Your task to perform on an android device: toggle javascript in the chrome app Image 0: 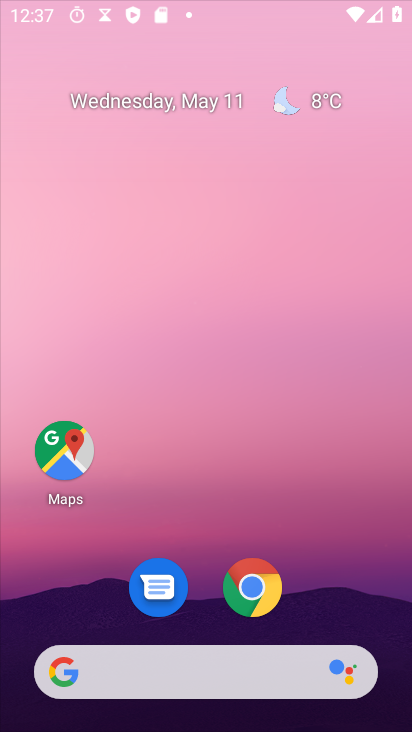
Step 0: drag from (274, 617) to (233, 109)
Your task to perform on an android device: toggle javascript in the chrome app Image 1: 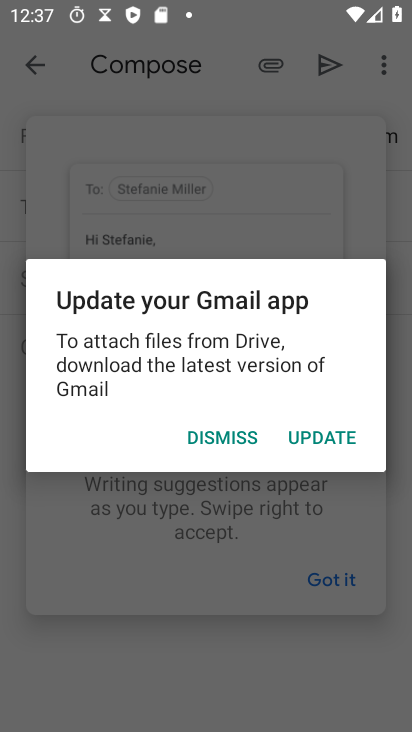
Step 1: click (217, 436)
Your task to perform on an android device: toggle javascript in the chrome app Image 2: 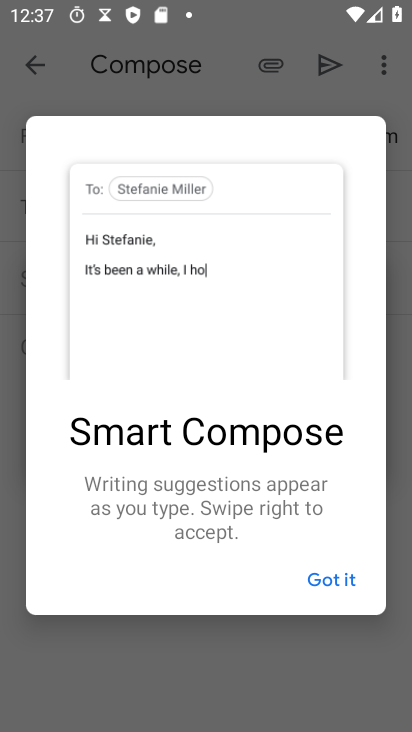
Step 2: click (343, 582)
Your task to perform on an android device: toggle javascript in the chrome app Image 3: 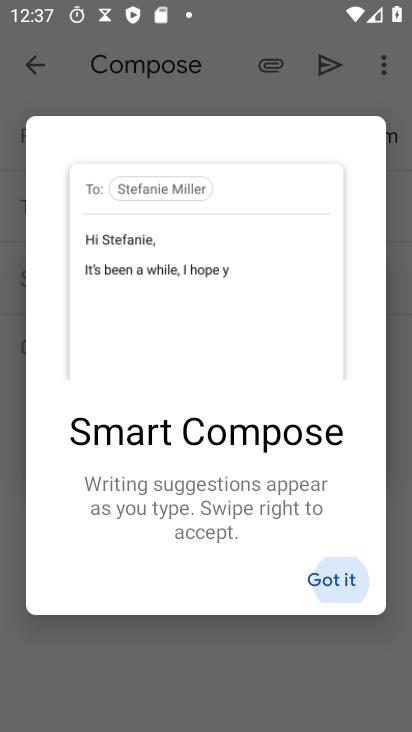
Step 3: click (339, 582)
Your task to perform on an android device: toggle javascript in the chrome app Image 4: 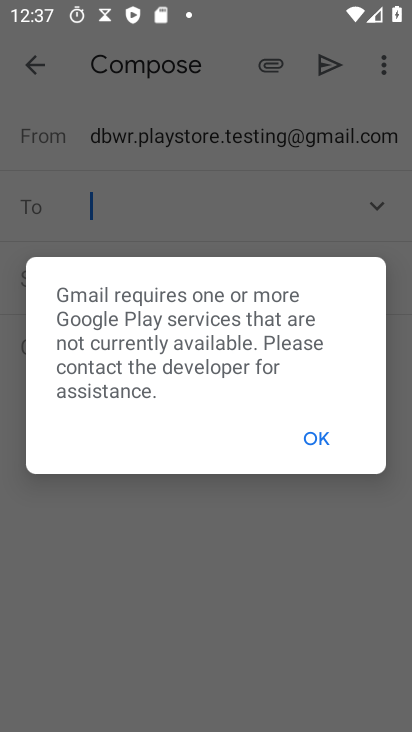
Step 4: click (338, 582)
Your task to perform on an android device: toggle javascript in the chrome app Image 5: 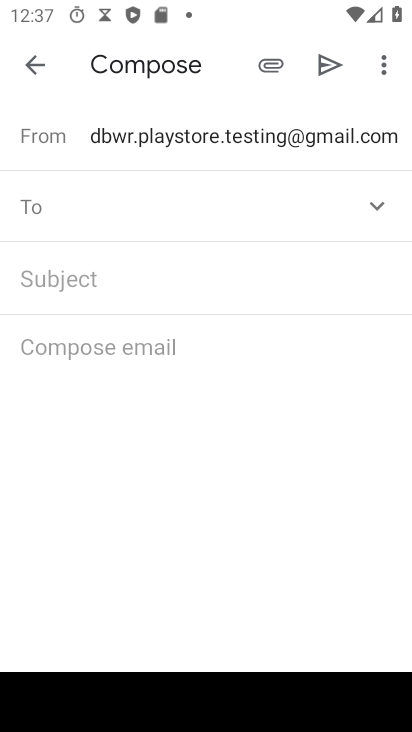
Step 5: click (33, 71)
Your task to perform on an android device: toggle javascript in the chrome app Image 6: 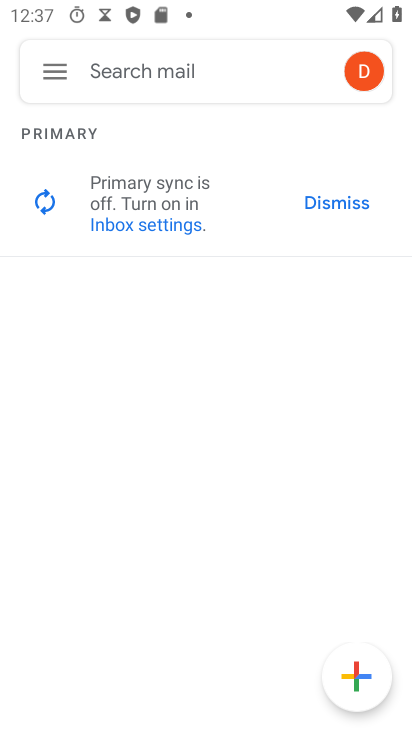
Step 6: press back button
Your task to perform on an android device: toggle javascript in the chrome app Image 7: 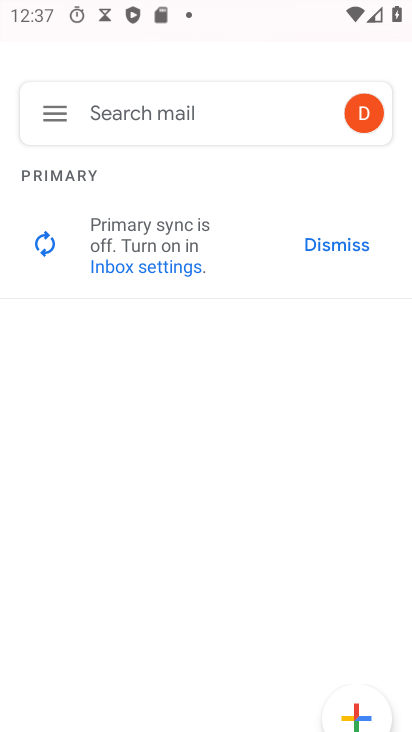
Step 7: press back button
Your task to perform on an android device: toggle javascript in the chrome app Image 8: 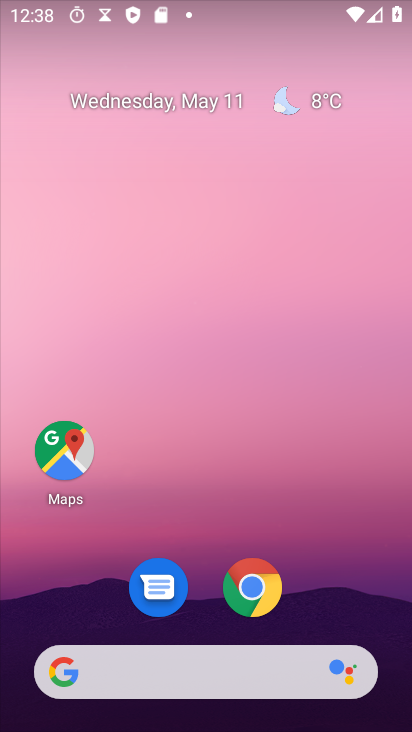
Step 8: drag from (350, 566) to (171, 254)
Your task to perform on an android device: toggle javascript in the chrome app Image 9: 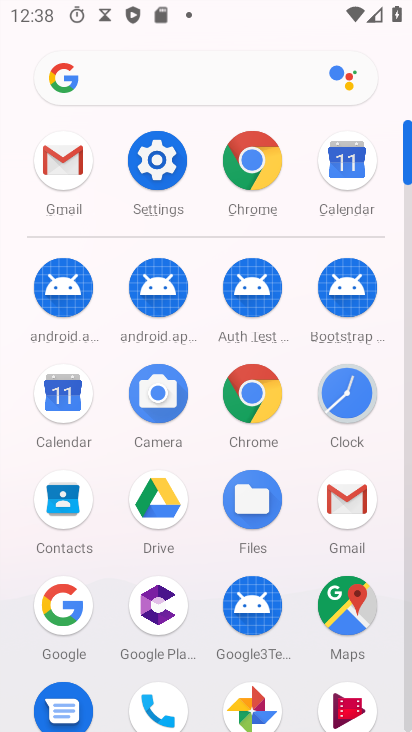
Step 9: click (251, 155)
Your task to perform on an android device: toggle javascript in the chrome app Image 10: 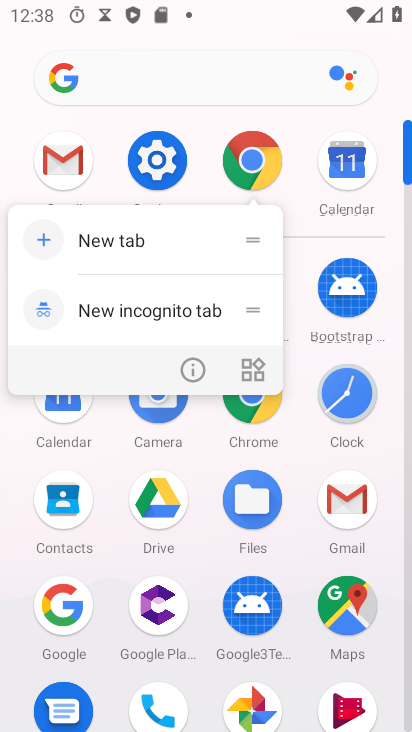
Step 10: click (251, 161)
Your task to perform on an android device: toggle javascript in the chrome app Image 11: 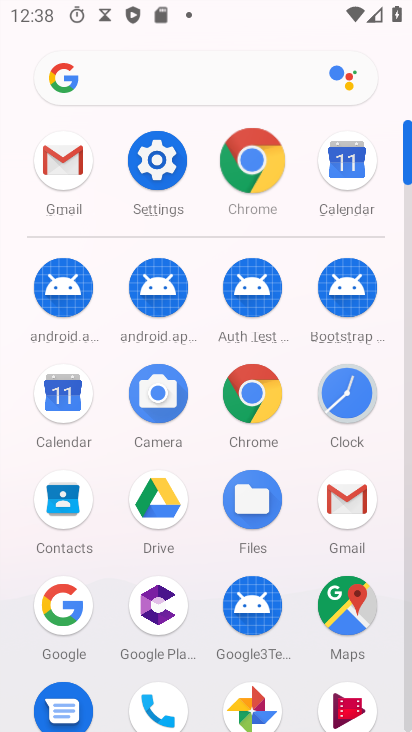
Step 11: click (257, 152)
Your task to perform on an android device: toggle javascript in the chrome app Image 12: 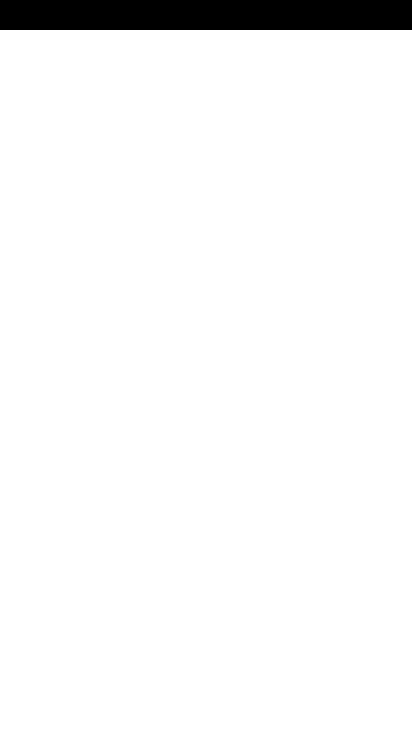
Step 12: click (258, 151)
Your task to perform on an android device: toggle javascript in the chrome app Image 13: 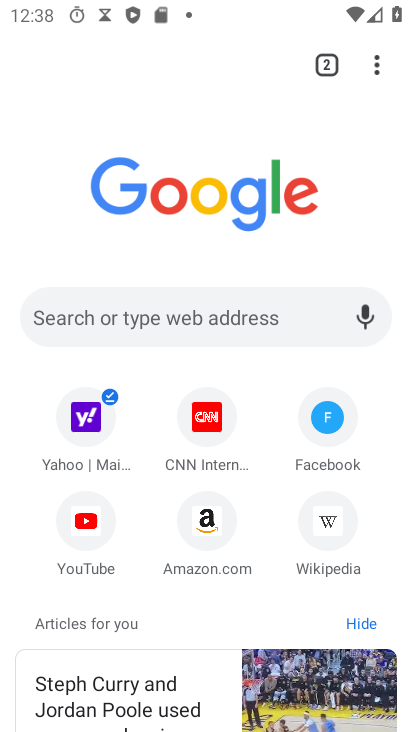
Step 13: drag from (385, 69) to (146, 560)
Your task to perform on an android device: toggle javascript in the chrome app Image 14: 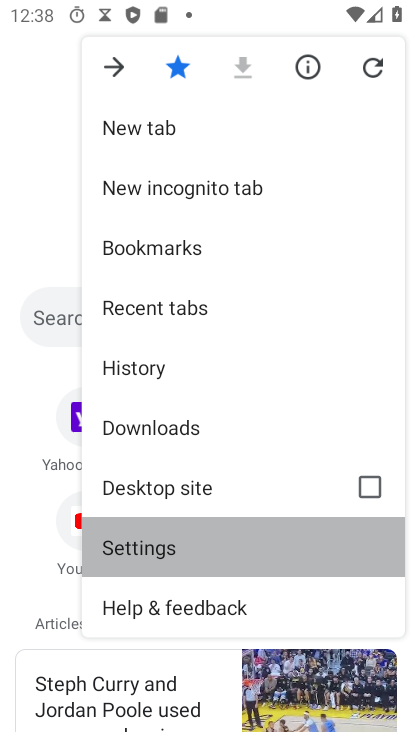
Step 14: click (146, 556)
Your task to perform on an android device: toggle javascript in the chrome app Image 15: 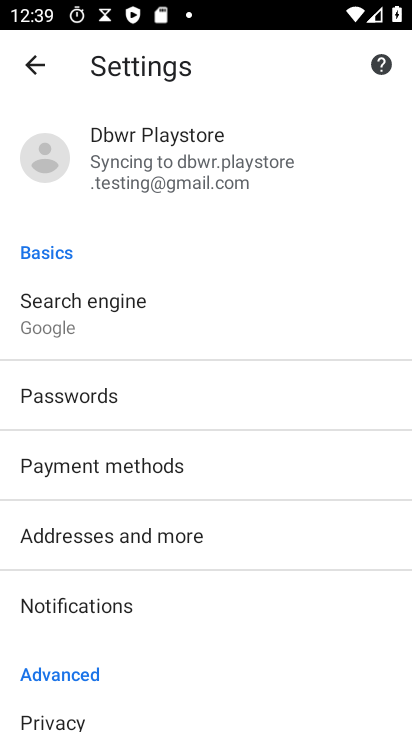
Step 15: drag from (184, 633) to (144, 406)
Your task to perform on an android device: toggle javascript in the chrome app Image 16: 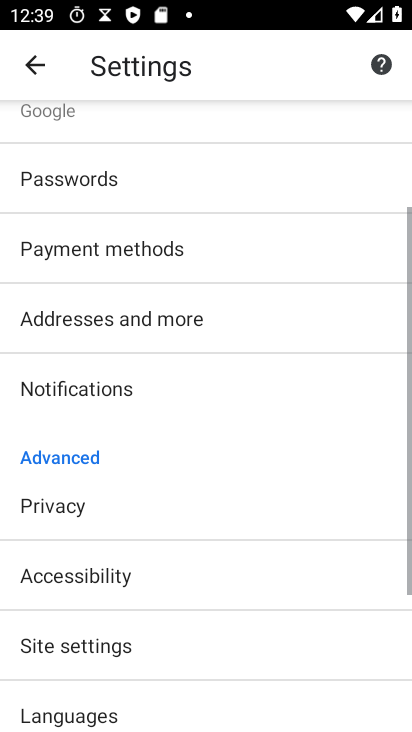
Step 16: drag from (142, 382) to (130, 299)
Your task to perform on an android device: toggle javascript in the chrome app Image 17: 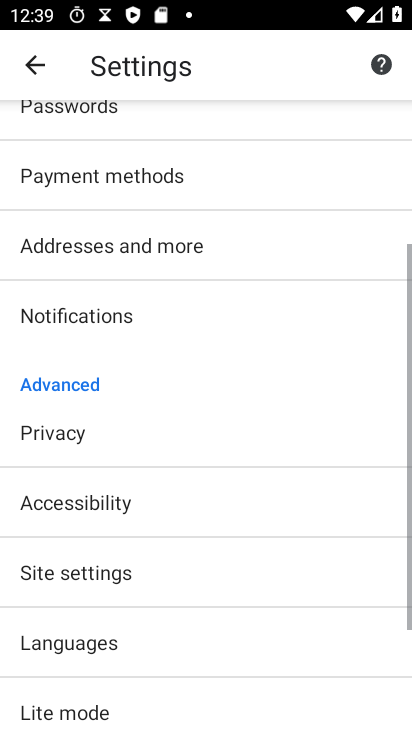
Step 17: drag from (156, 484) to (82, 262)
Your task to perform on an android device: toggle javascript in the chrome app Image 18: 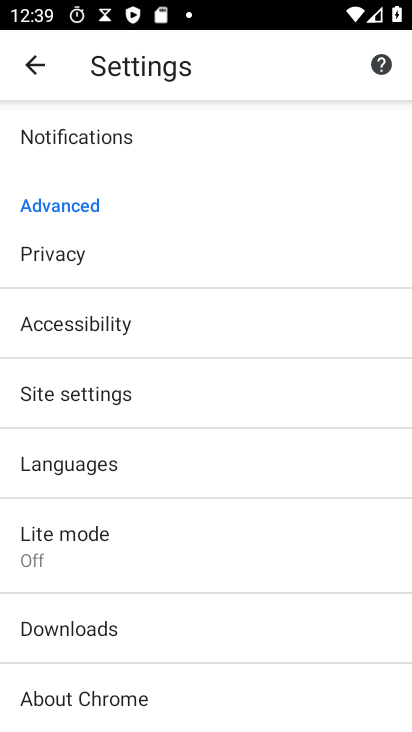
Step 18: drag from (126, 577) to (132, 128)
Your task to perform on an android device: toggle javascript in the chrome app Image 19: 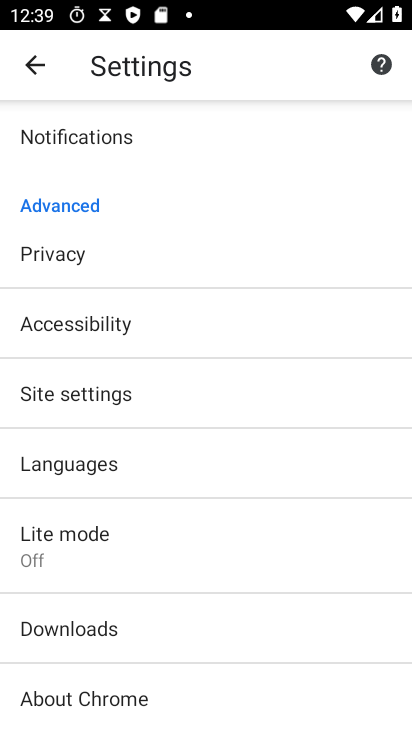
Step 19: drag from (175, 557) to (114, 265)
Your task to perform on an android device: toggle javascript in the chrome app Image 20: 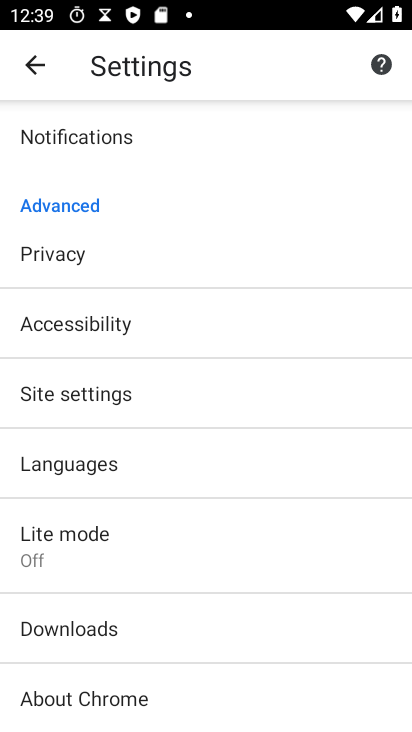
Step 20: click (70, 392)
Your task to perform on an android device: toggle javascript in the chrome app Image 21: 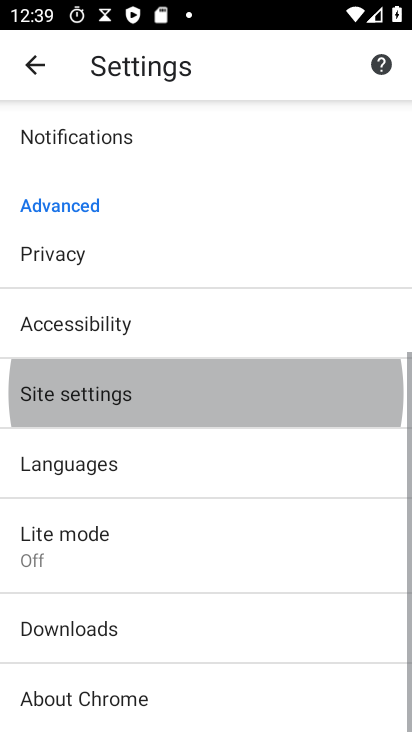
Step 21: click (69, 394)
Your task to perform on an android device: toggle javascript in the chrome app Image 22: 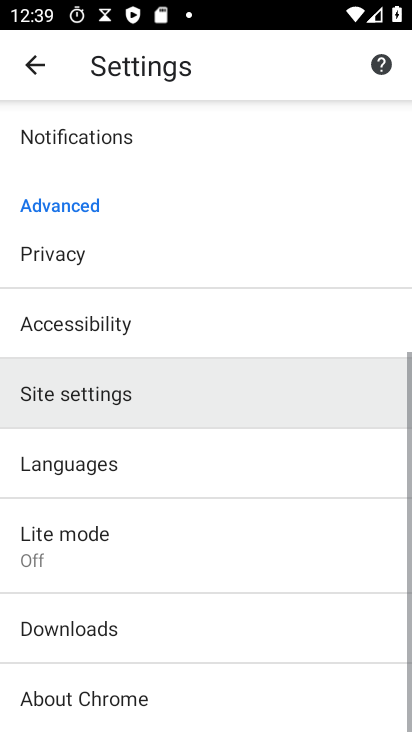
Step 22: click (69, 394)
Your task to perform on an android device: toggle javascript in the chrome app Image 23: 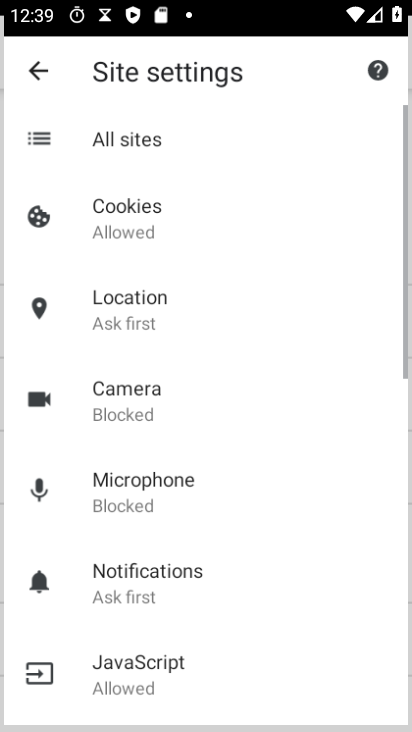
Step 23: click (68, 395)
Your task to perform on an android device: toggle javascript in the chrome app Image 24: 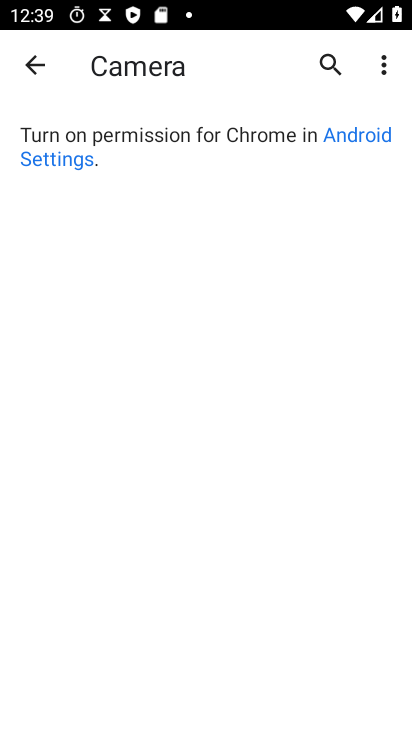
Step 24: click (34, 65)
Your task to perform on an android device: toggle javascript in the chrome app Image 25: 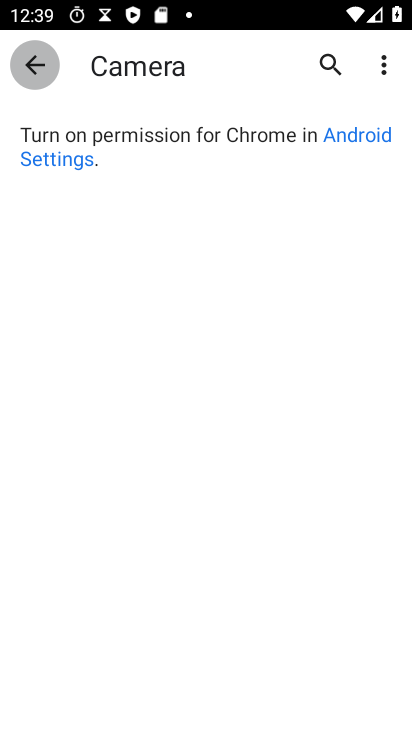
Step 25: click (35, 64)
Your task to perform on an android device: toggle javascript in the chrome app Image 26: 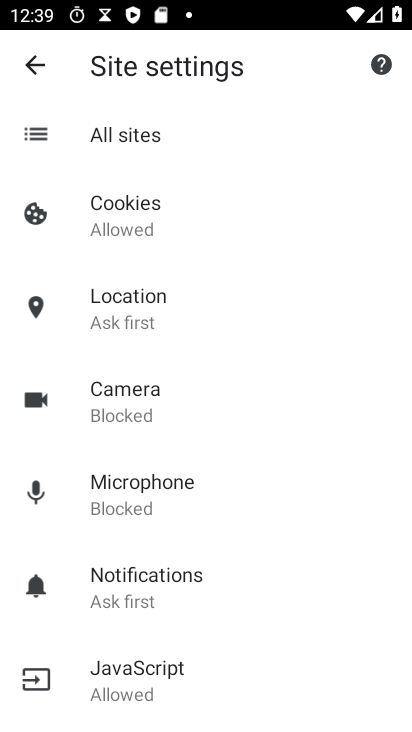
Step 26: click (135, 664)
Your task to perform on an android device: toggle javascript in the chrome app Image 27: 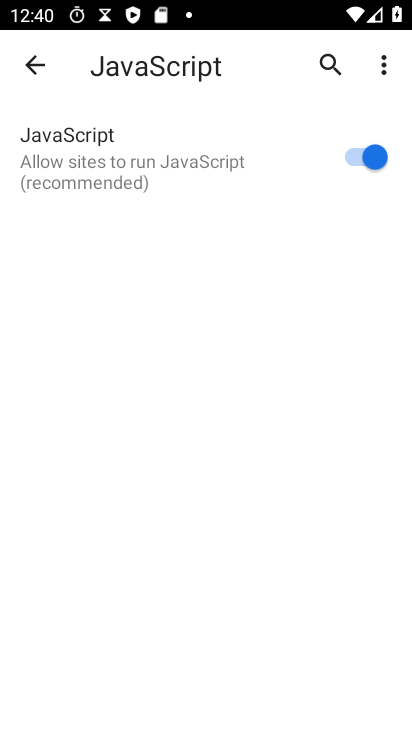
Step 27: click (363, 156)
Your task to perform on an android device: toggle javascript in the chrome app Image 28: 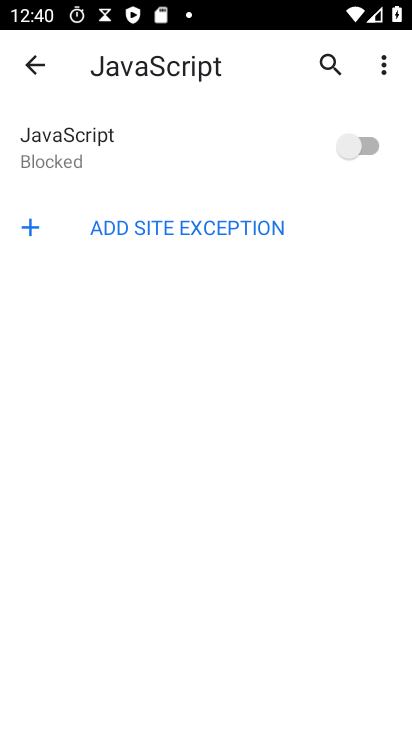
Step 28: task complete